Your task to perform on an android device: Go to location settings Image 0: 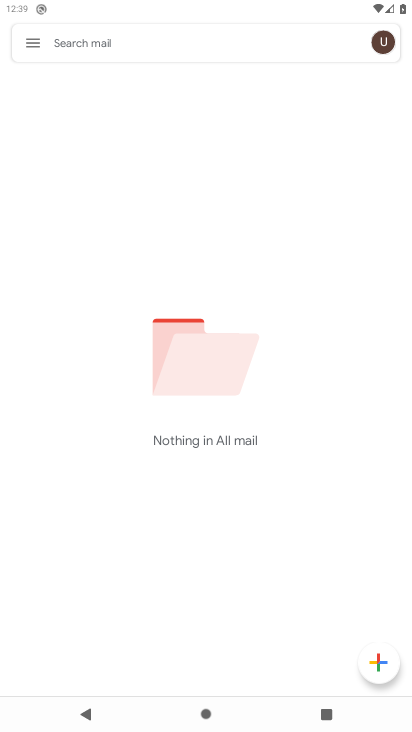
Step 0: press home button
Your task to perform on an android device: Go to location settings Image 1: 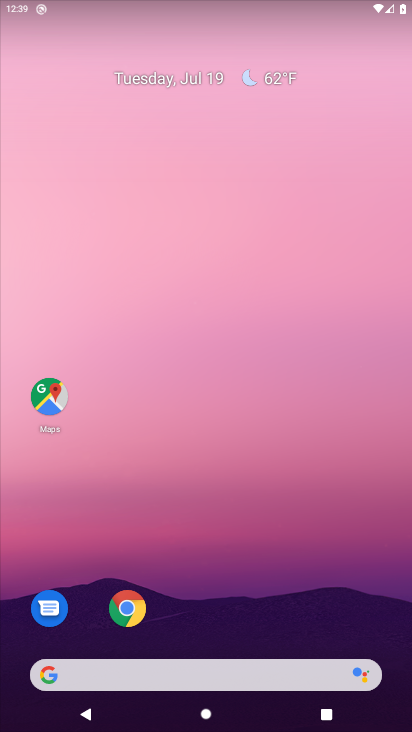
Step 1: drag from (208, 635) to (211, 46)
Your task to perform on an android device: Go to location settings Image 2: 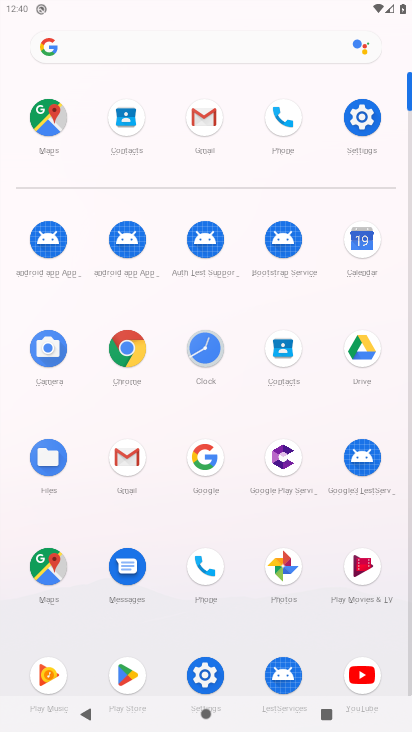
Step 2: click (359, 110)
Your task to perform on an android device: Go to location settings Image 3: 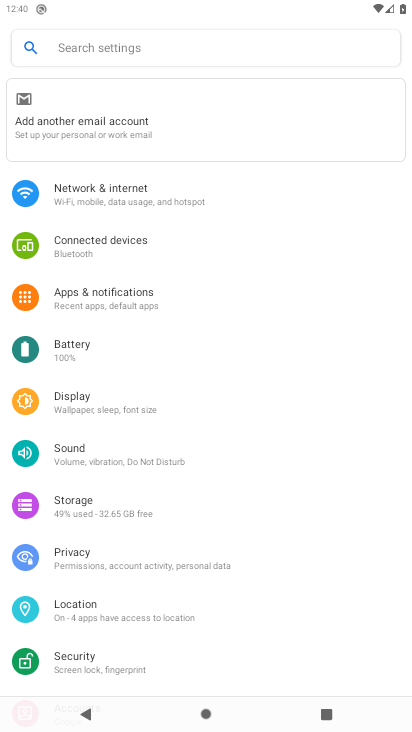
Step 3: click (113, 606)
Your task to perform on an android device: Go to location settings Image 4: 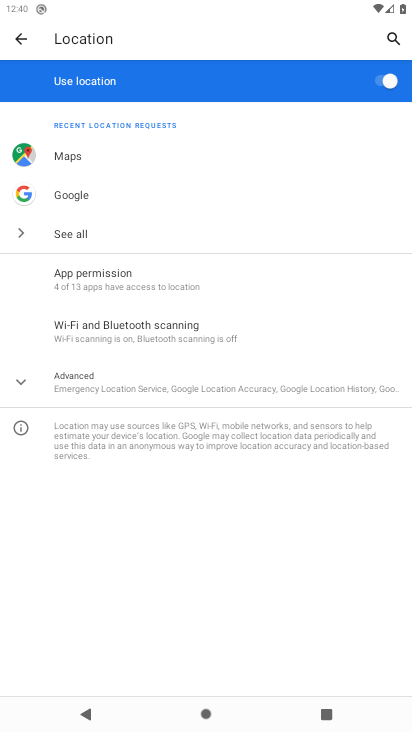
Step 4: click (26, 383)
Your task to perform on an android device: Go to location settings Image 5: 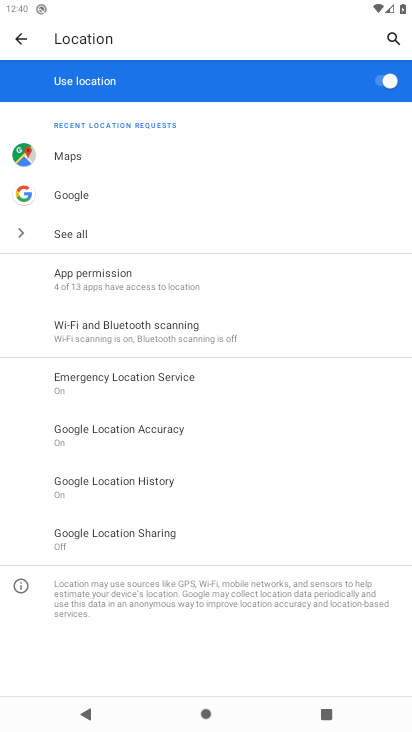
Step 5: task complete